Your task to perform on an android device: Search for pizza restaurants on Maps Image 0: 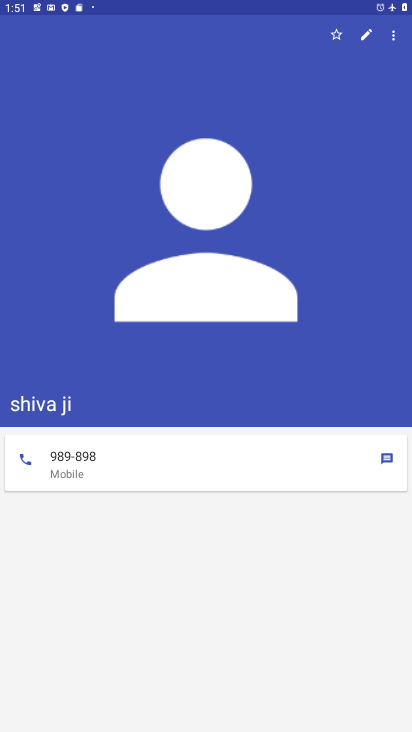
Step 0: press home button
Your task to perform on an android device: Search for pizza restaurants on Maps Image 1: 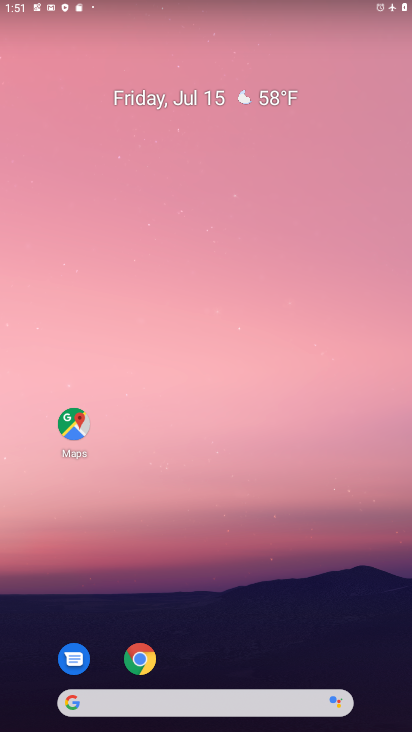
Step 1: drag from (224, 716) to (242, 217)
Your task to perform on an android device: Search for pizza restaurants on Maps Image 2: 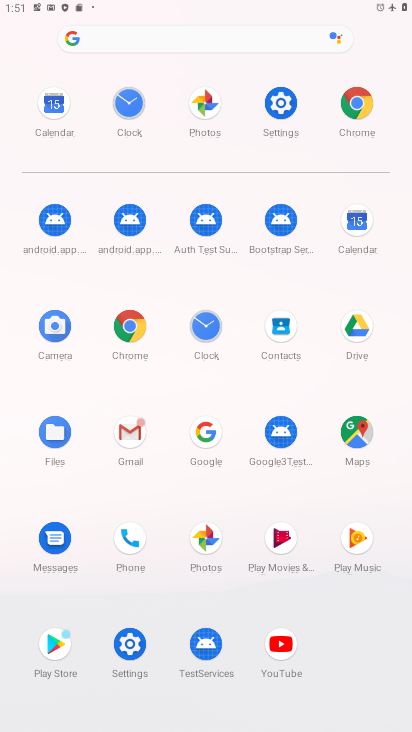
Step 2: click (282, 95)
Your task to perform on an android device: Search for pizza restaurants on Maps Image 3: 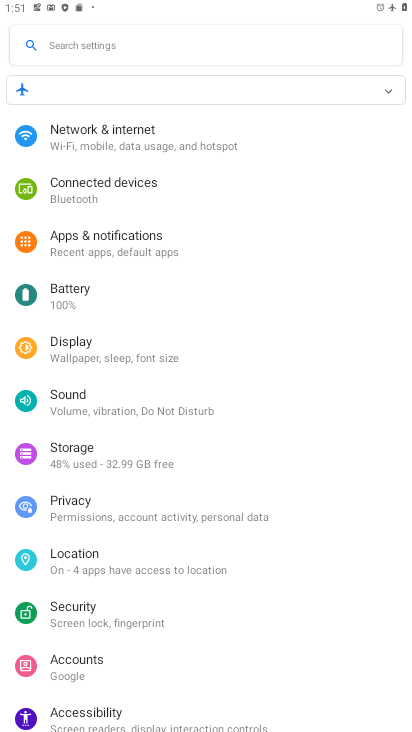
Step 3: click (109, 136)
Your task to perform on an android device: Search for pizza restaurants on Maps Image 4: 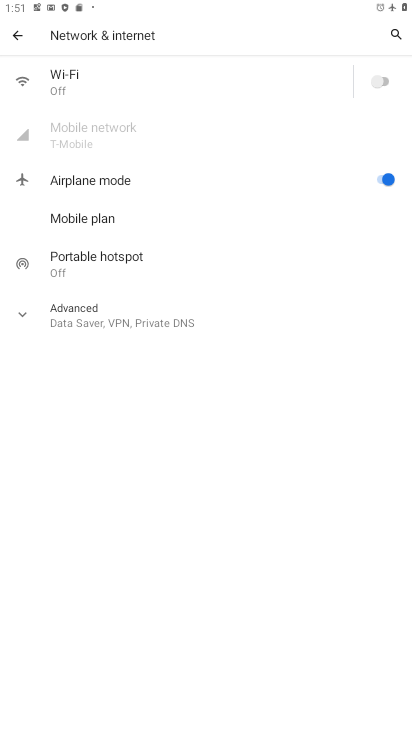
Step 4: click (393, 176)
Your task to perform on an android device: Search for pizza restaurants on Maps Image 5: 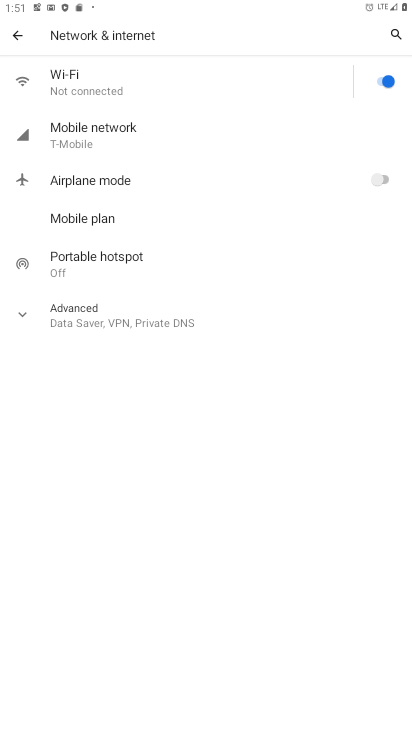
Step 5: press home button
Your task to perform on an android device: Search for pizza restaurants on Maps Image 6: 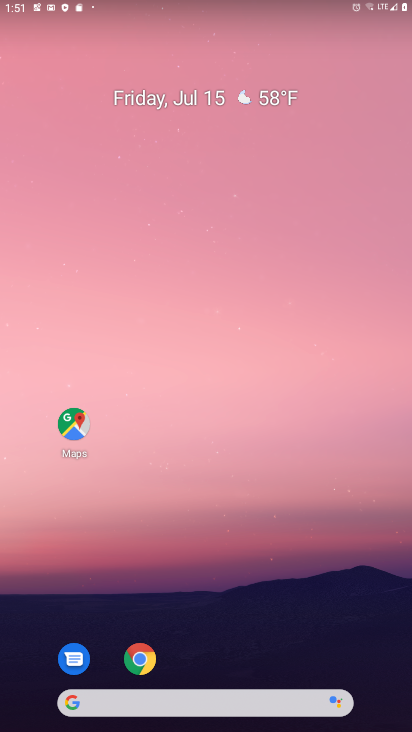
Step 6: drag from (202, 709) to (204, 147)
Your task to perform on an android device: Search for pizza restaurants on Maps Image 7: 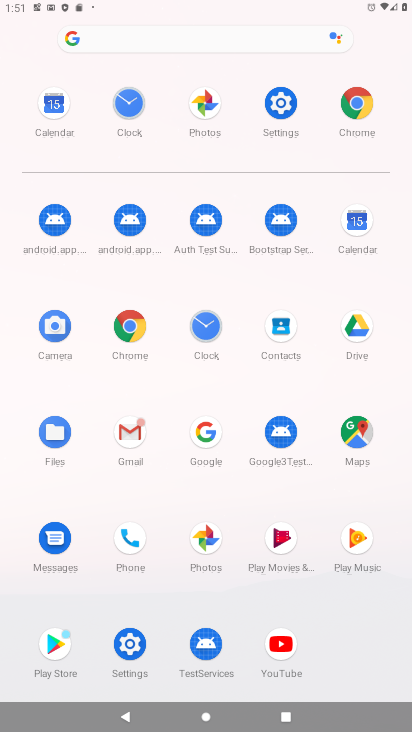
Step 7: click (363, 428)
Your task to perform on an android device: Search for pizza restaurants on Maps Image 8: 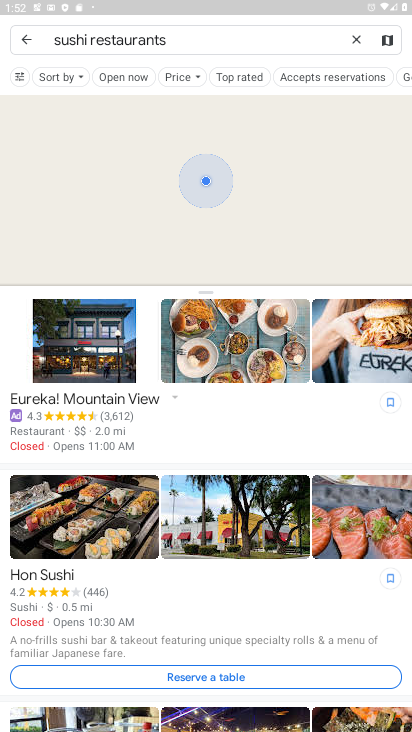
Step 8: click (213, 43)
Your task to perform on an android device: Search for pizza restaurants on Maps Image 9: 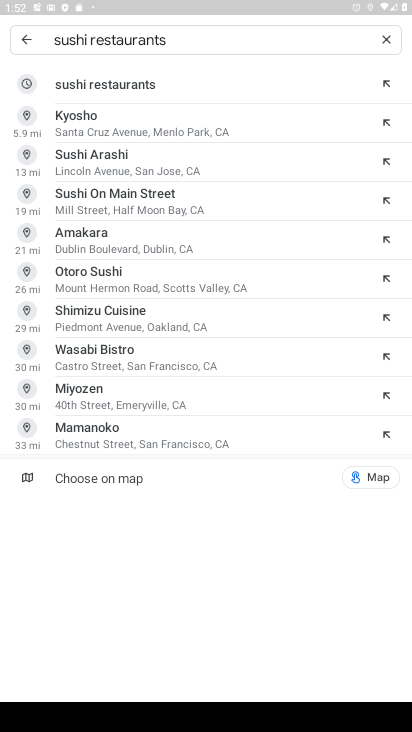
Step 9: click (383, 35)
Your task to perform on an android device: Search for pizza restaurants on Maps Image 10: 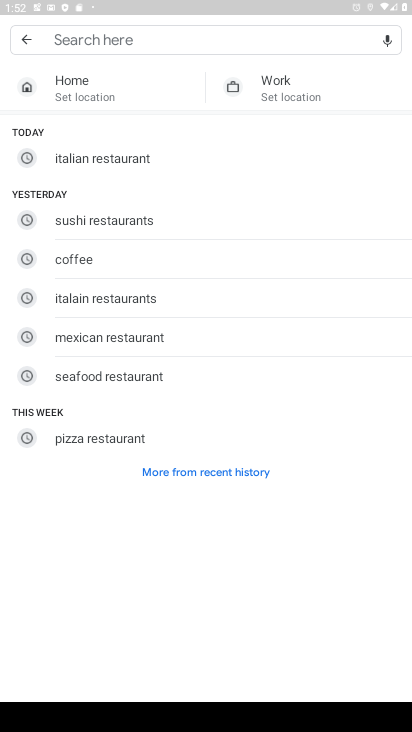
Step 10: type "Pizza restaurants"
Your task to perform on an android device: Search for pizza restaurants on Maps Image 11: 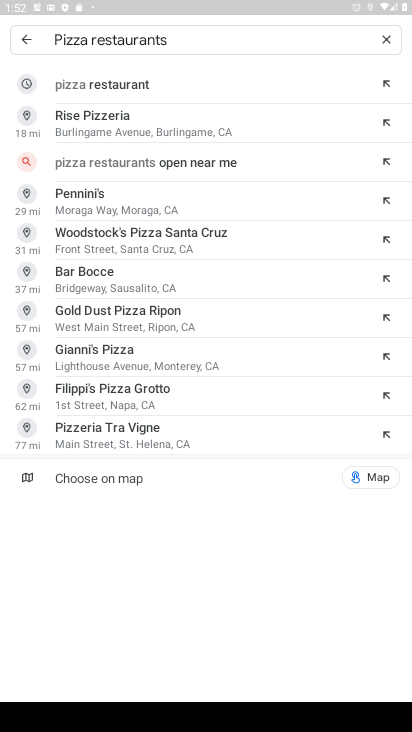
Step 11: click (94, 84)
Your task to perform on an android device: Search for pizza restaurants on Maps Image 12: 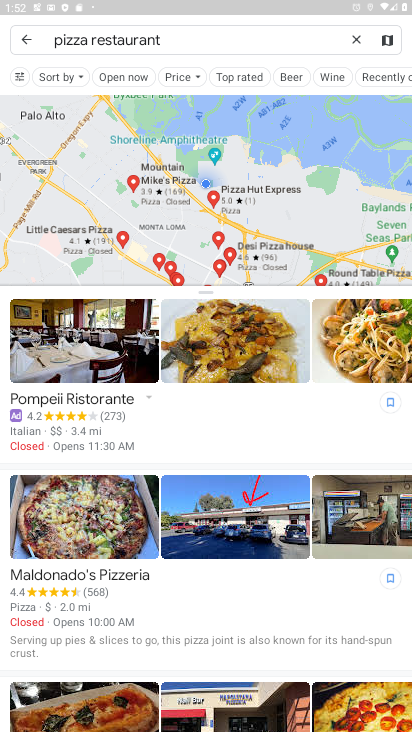
Step 12: task complete